Your task to perform on an android device: Go to settings Image 0: 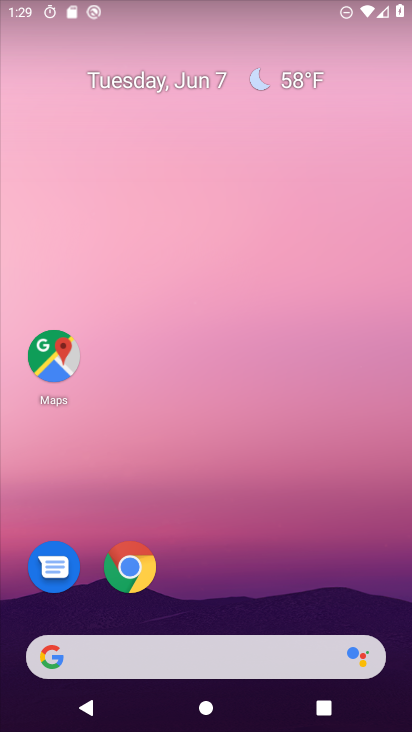
Step 0: drag from (405, 696) to (329, 36)
Your task to perform on an android device: Go to settings Image 1: 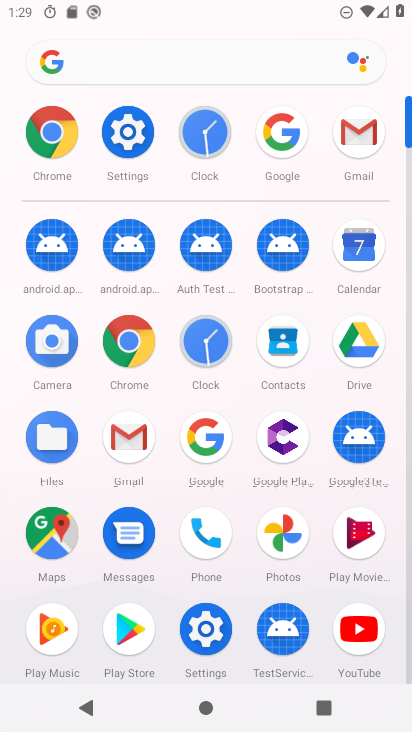
Step 1: click (141, 116)
Your task to perform on an android device: Go to settings Image 2: 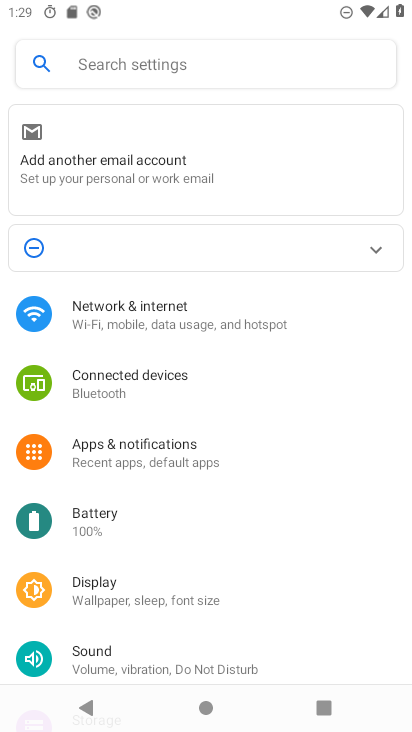
Step 2: task complete